Your task to perform on an android device: uninstall "Google Play Music" Image 0: 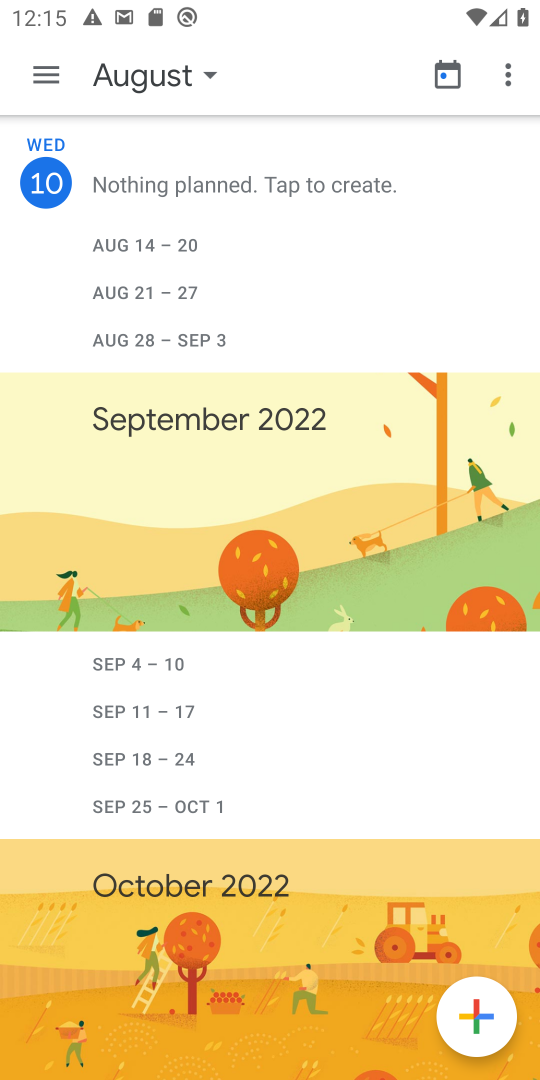
Step 0: press home button
Your task to perform on an android device: uninstall "Google Play Music" Image 1: 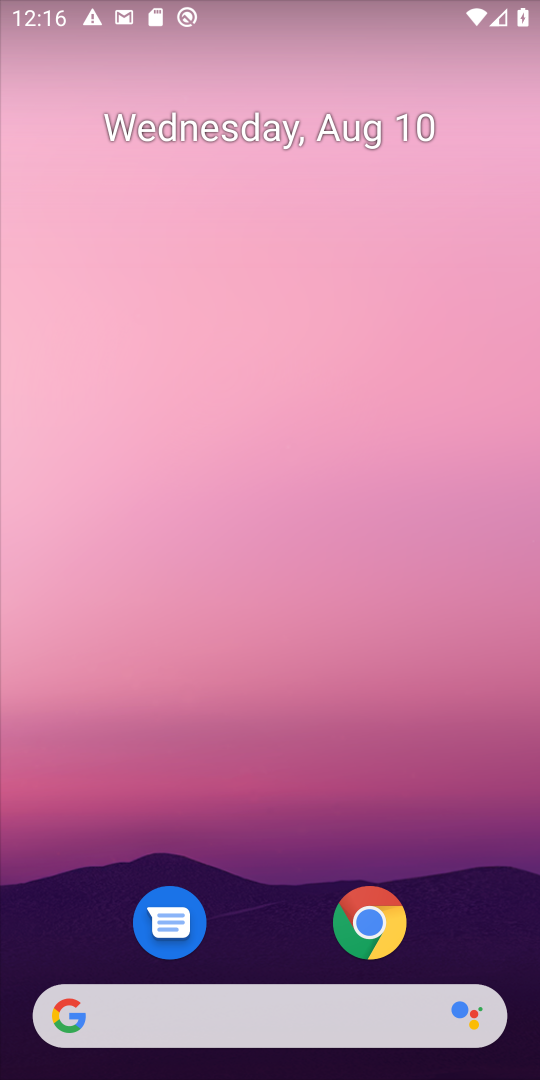
Step 1: drag from (273, 327) to (282, 81)
Your task to perform on an android device: uninstall "Google Play Music" Image 2: 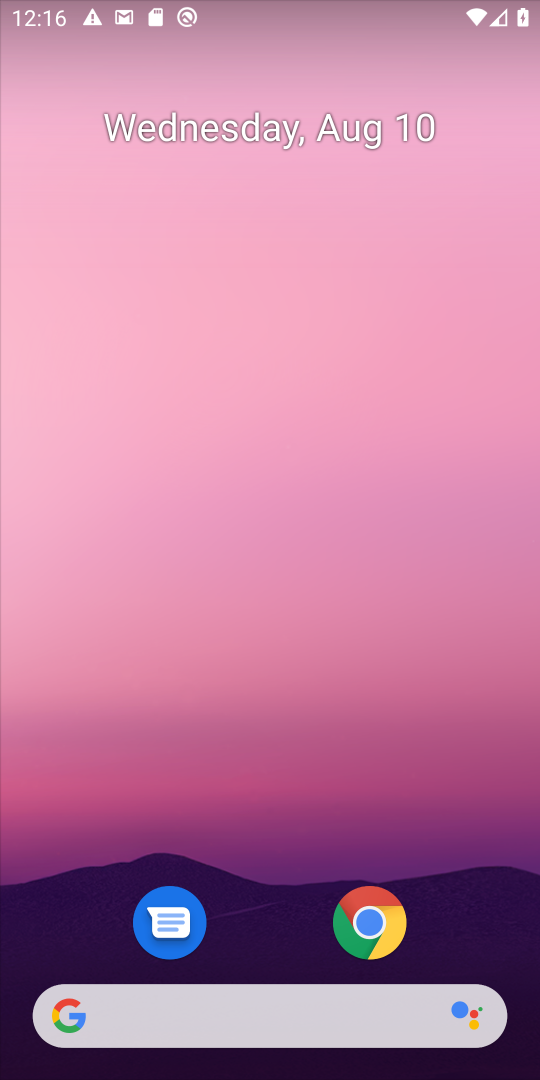
Step 2: drag from (268, 736) to (347, 111)
Your task to perform on an android device: uninstall "Google Play Music" Image 3: 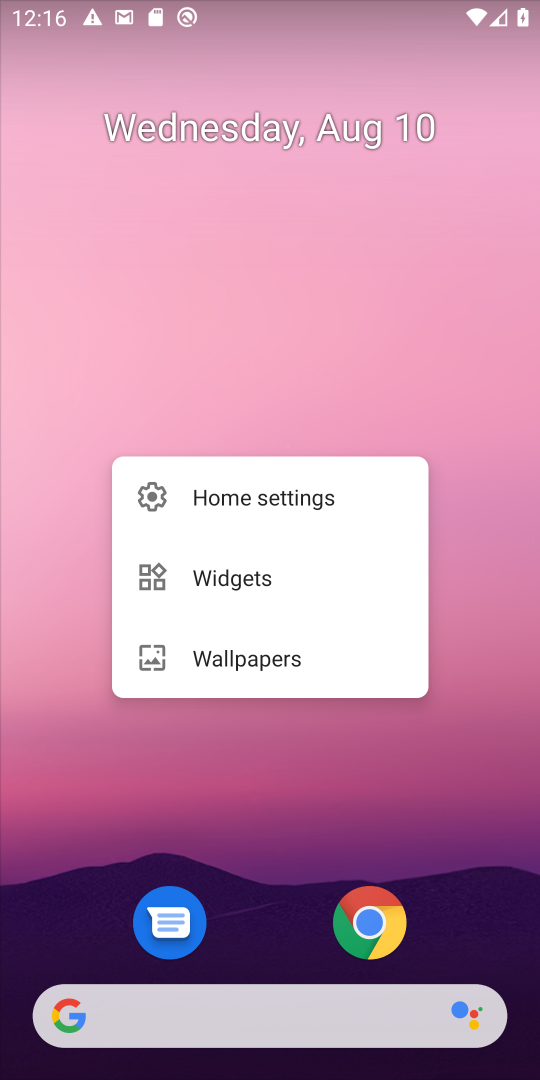
Step 3: drag from (273, 794) to (303, 169)
Your task to perform on an android device: uninstall "Google Play Music" Image 4: 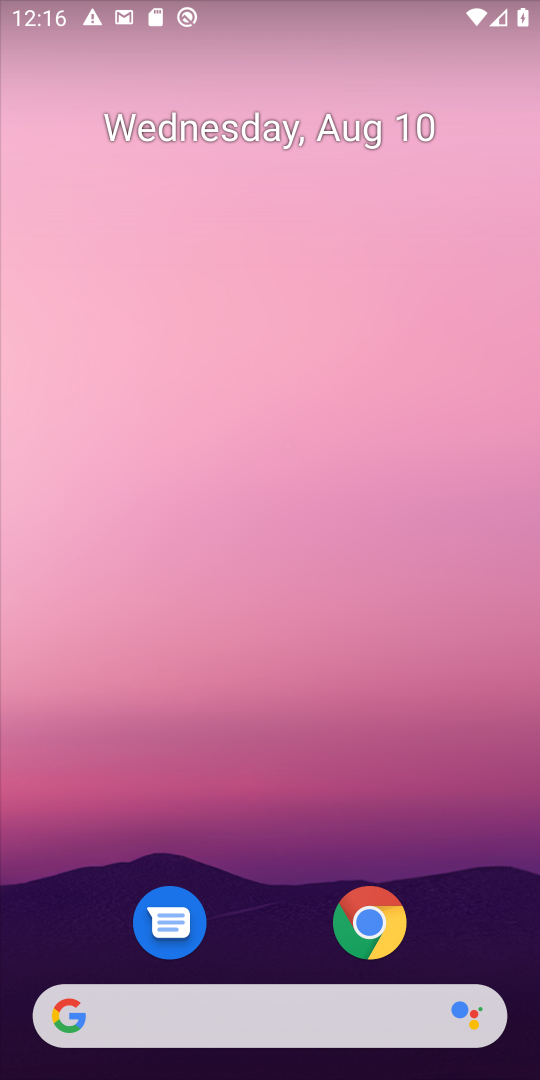
Step 4: drag from (250, 907) to (318, 5)
Your task to perform on an android device: uninstall "Google Play Music" Image 5: 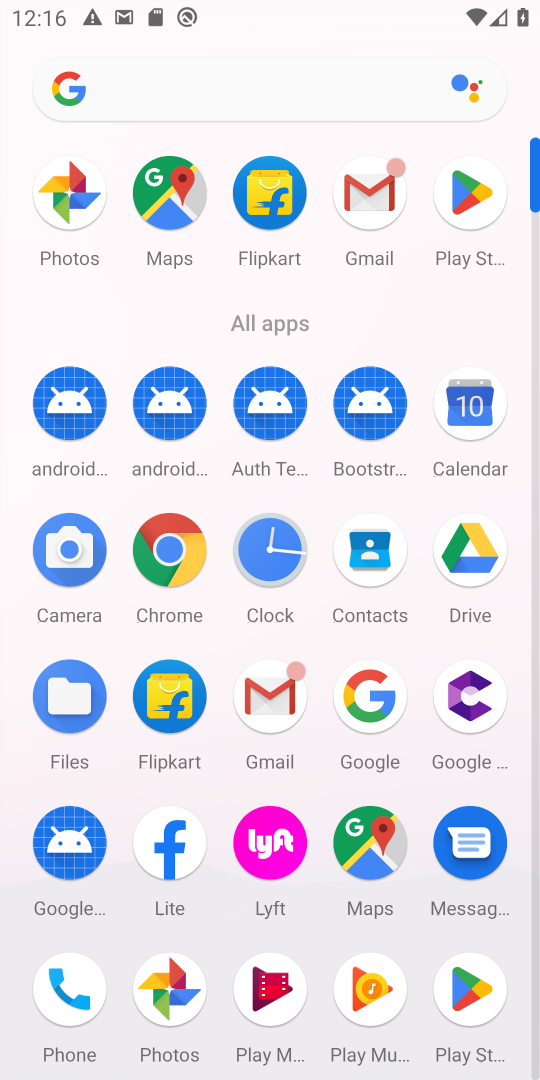
Step 5: click (480, 213)
Your task to perform on an android device: uninstall "Google Play Music" Image 6: 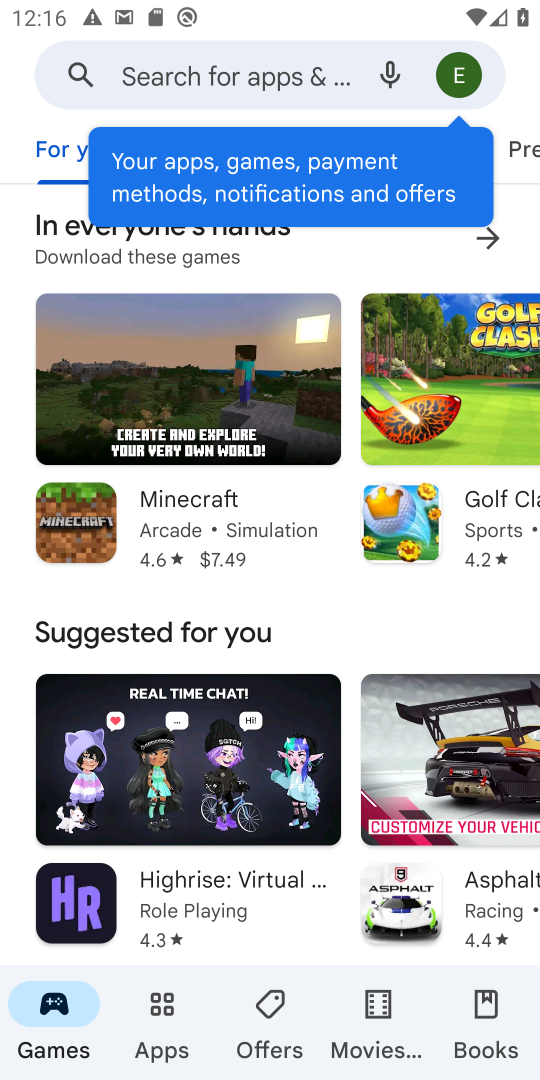
Step 6: click (284, 67)
Your task to perform on an android device: uninstall "Google Play Music" Image 7: 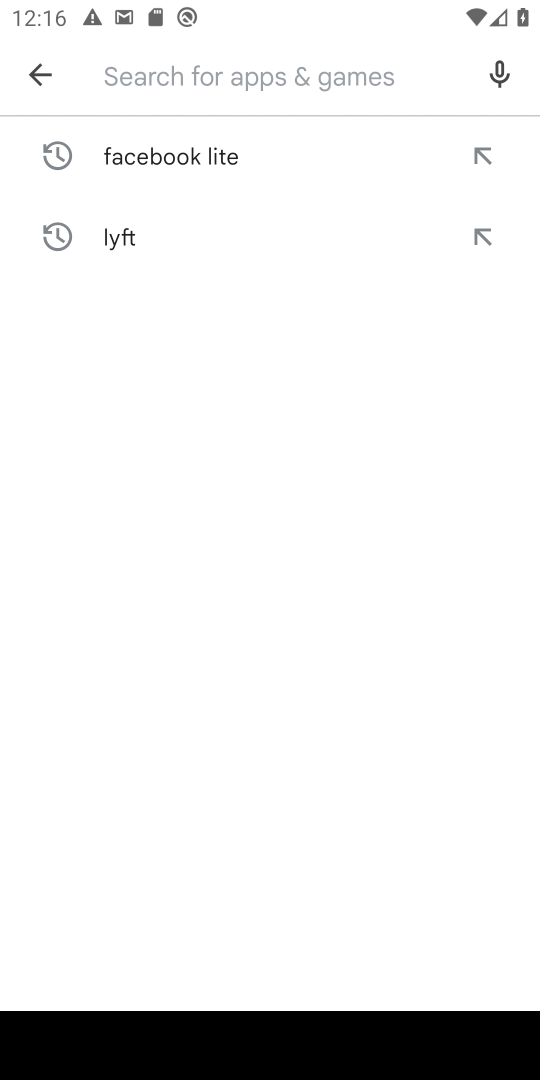
Step 7: type "Google Play Music"
Your task to perform on an android device: uninstall "Google Play Music" Image 8: 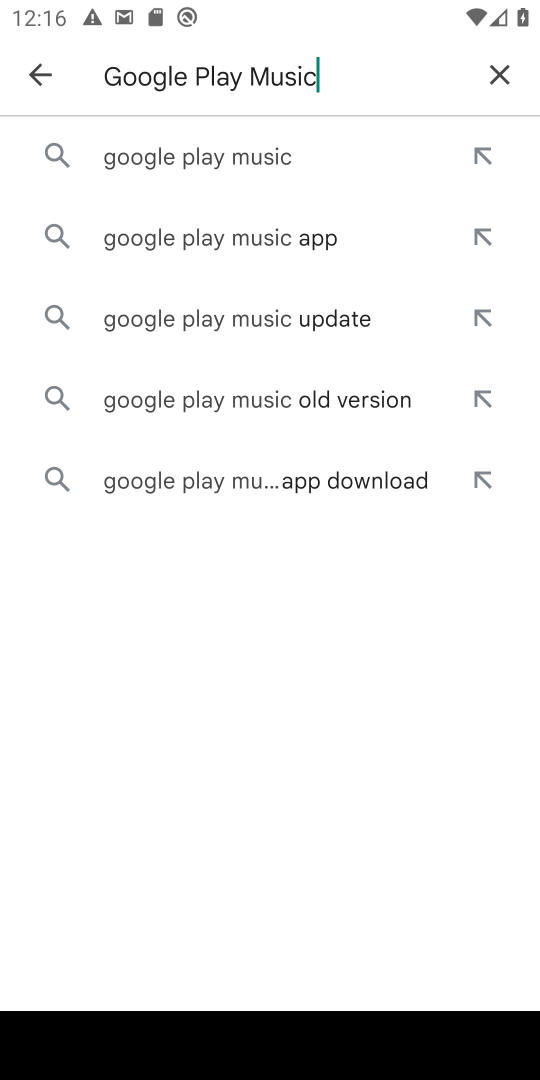
Step 8: click (252, 162)
Your task to perform on an android device: uninstall "Google Play Music" Image 9: 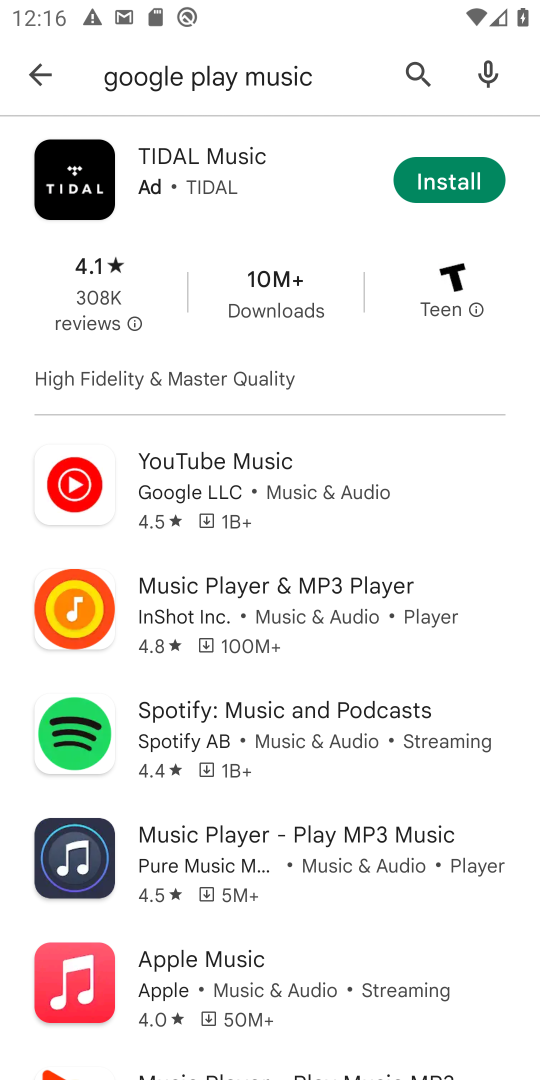
Step 9: click (435, 166)
Your task to perform on an android device: uninstall "Google Play Music" Image 10: 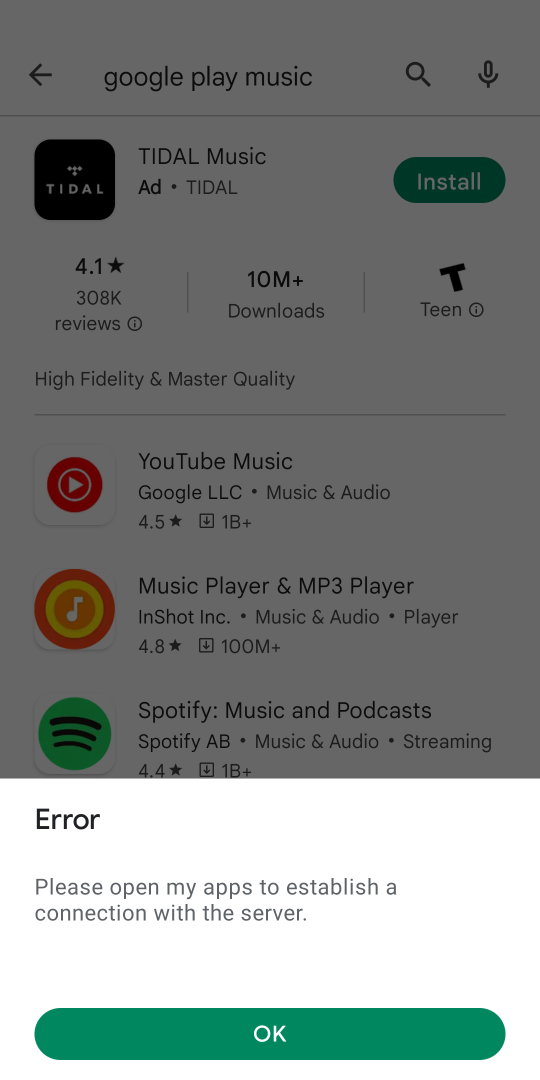
Step 10: click (277, 1029)
Your task to perform on an android device: uninstall "Google Play Music" Image 11: 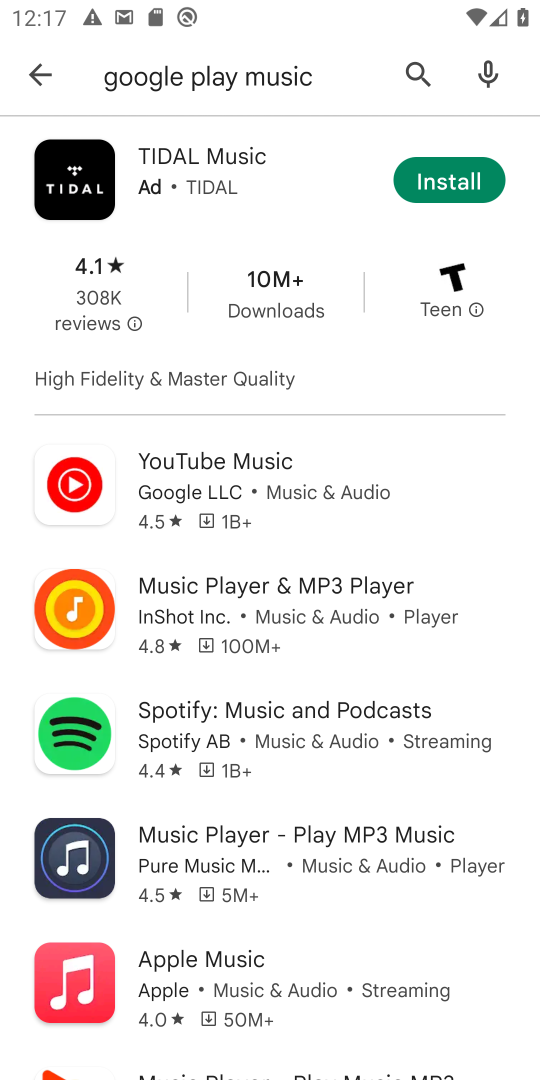
Step 11: click (39, 84)
Your task to perform on an android device: uninstall "Google Play Music" Image 12: 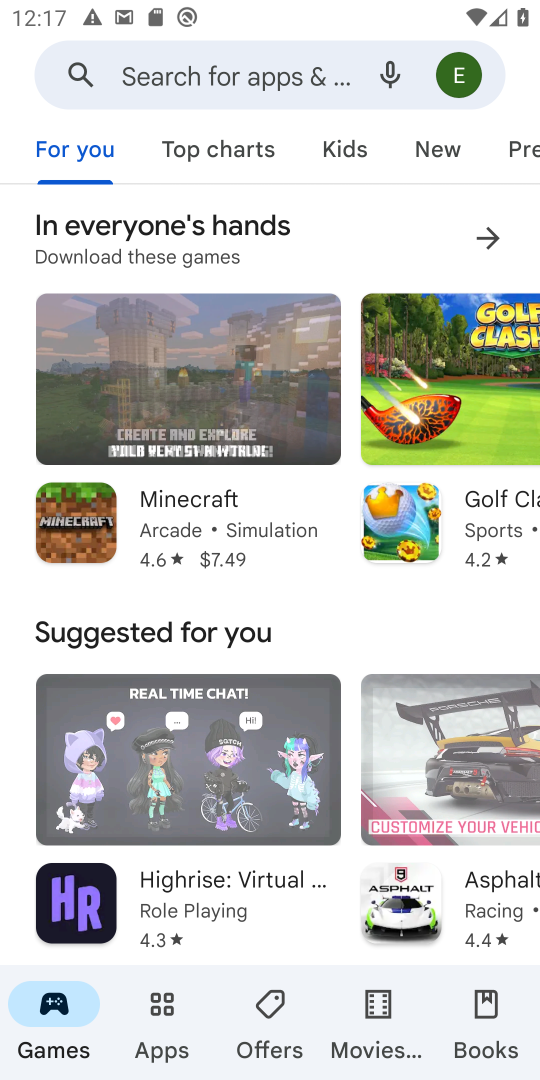
Step 12: click (190, 61)
Your task to perform on an android device: uninstall "Google Play Music" Image 13: 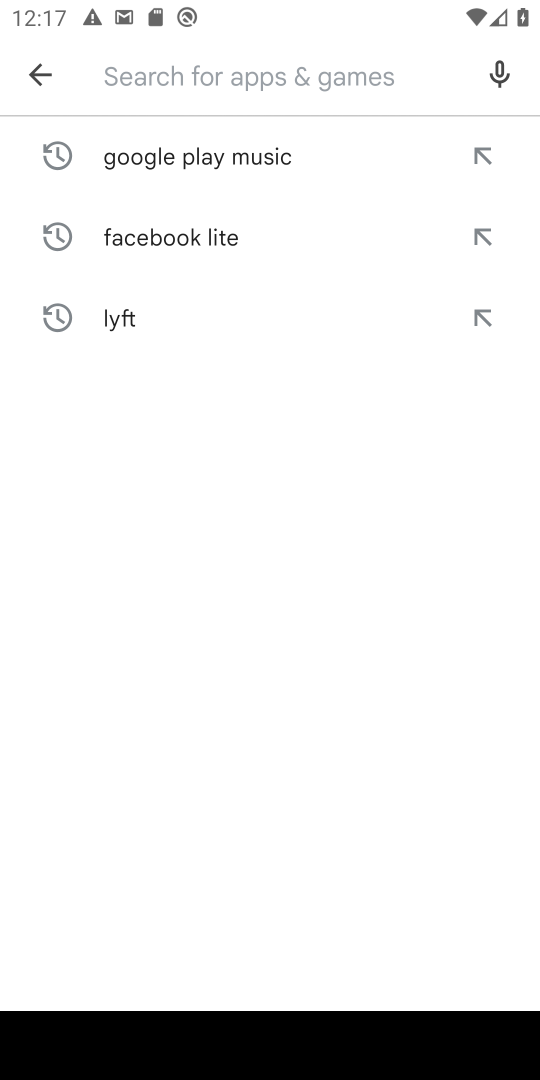
Step 13: click (280, 145)
Your task to perform on an android device: uninstall "Google Play Music" Image 14: 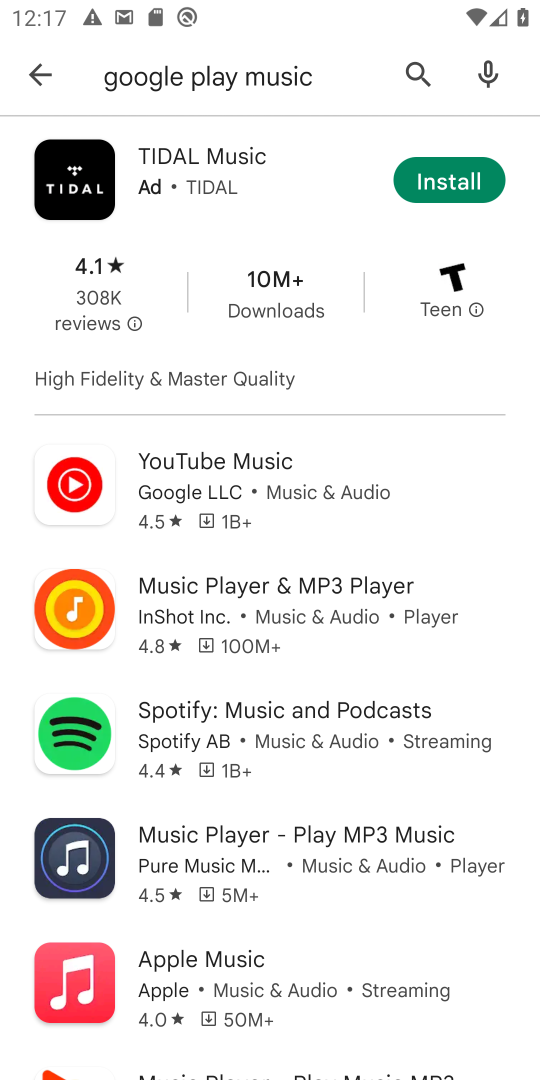
Step 14: task complete